Your task to perform on an android device: Go to eBay Image 0: 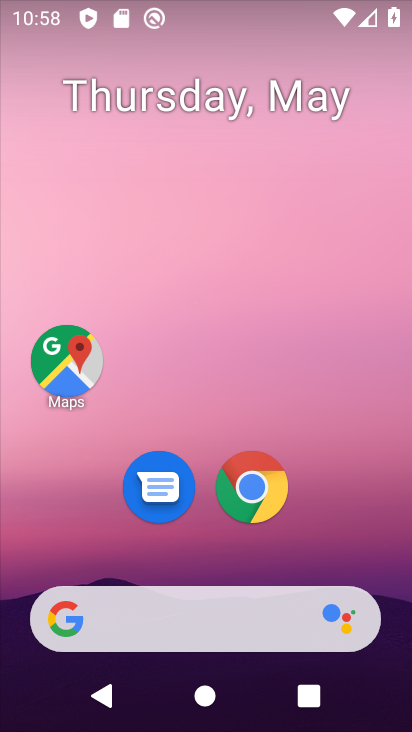
Step 0: drag from (351, 528) to (348, 93)
Your task to perform on an android device: Go to eBay Image 1: 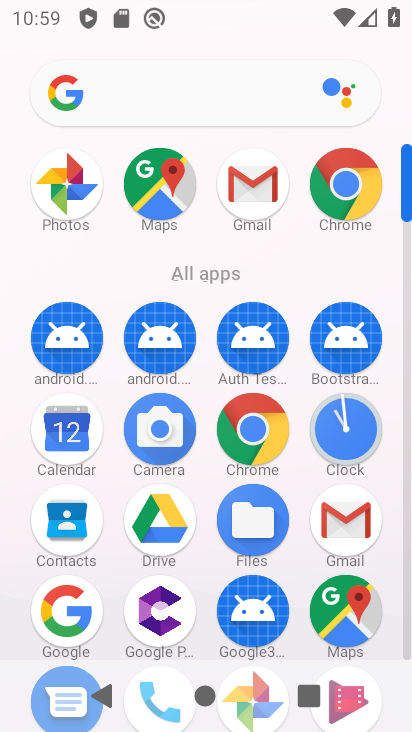
Step 1: click (350, 166)
Your task to perform on an android device: Go to eBay Image 2: 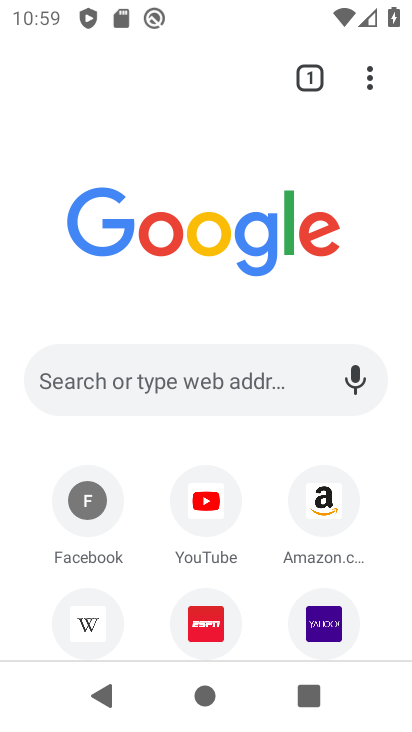
Step 2: drag from (378, 550) to (331, 223)
Your task to perform on an android device: Go to eBay Image 3: 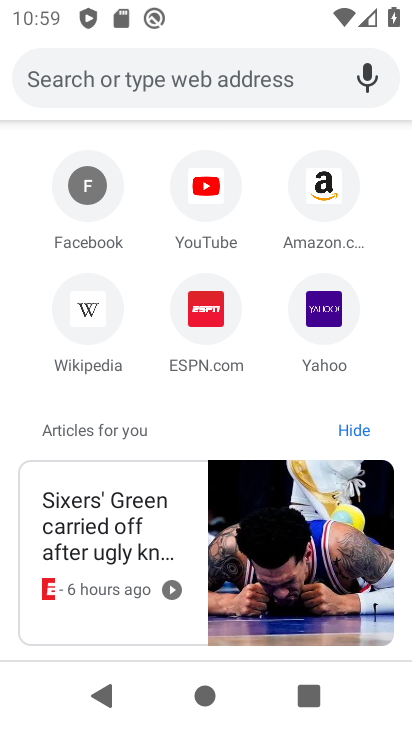
Step 3: click (139, 90)
Your task to perform on an android device: Go to eBay Image 4: 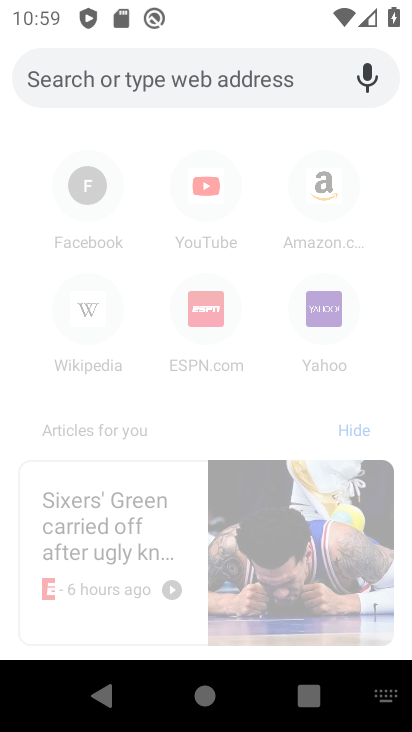
Step 4: type "ebay"
Your task to perform on an android device: Go to eBay Image 5: 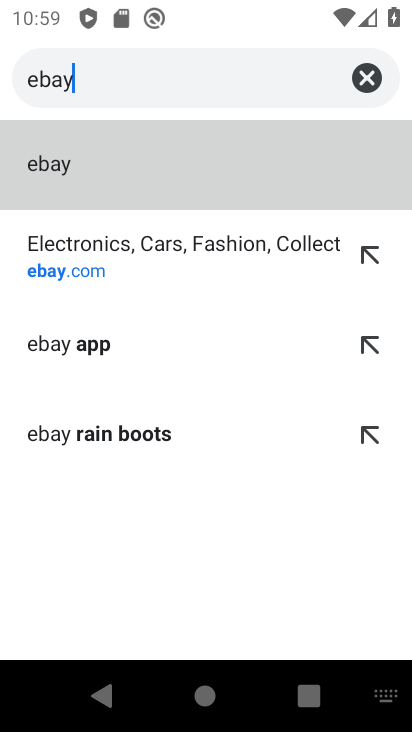
Step 5: click (86, 271)
Your task to perform on an android device: Go to eBay Image 6: 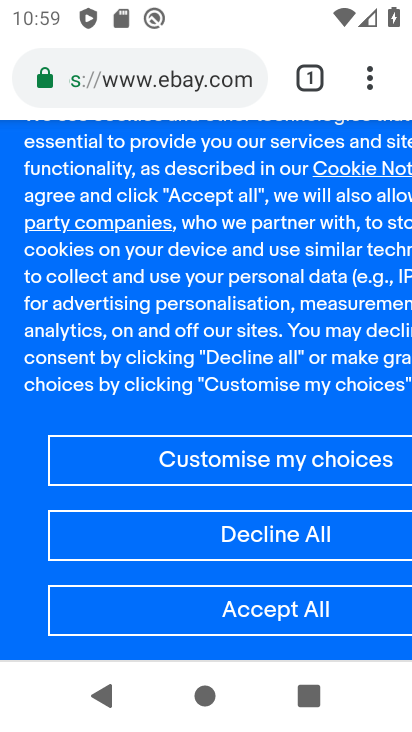
Step 6: task complete